Your task to perform on an android device: delete browsing data in the chrome app Image 0: 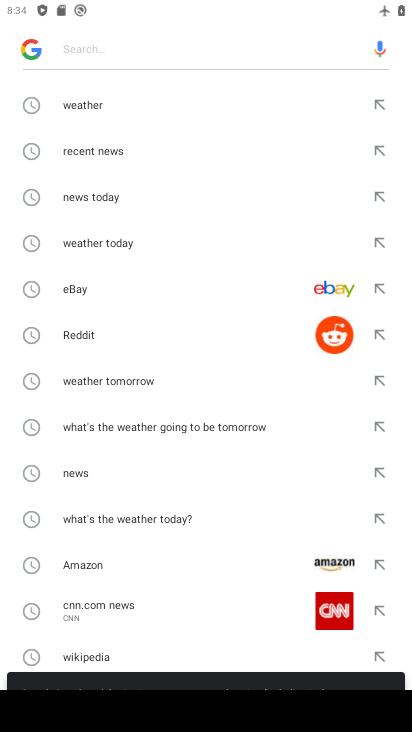
Step 0: press home button
Your task to perform on an android device: delete browsing data in the chrome app Image 1: 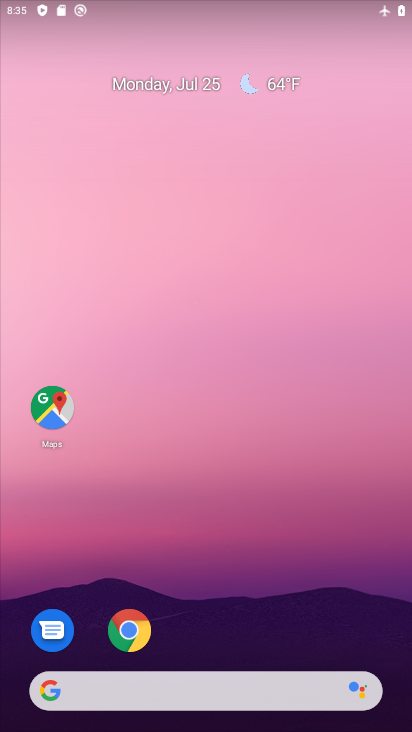
Step 1: click (130, 632)
Your task to perform on an android device: delete browsing data in the chrome app Image 2: 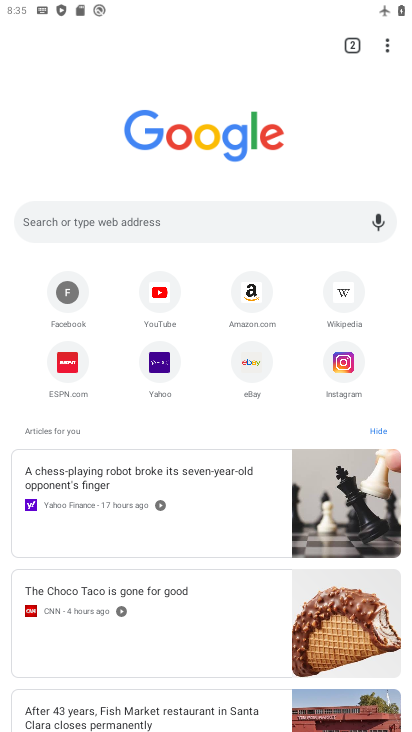
Step 2: click (385, 49)
Your task to perform on an android device: delete browsing data in the chrome app Image 3: 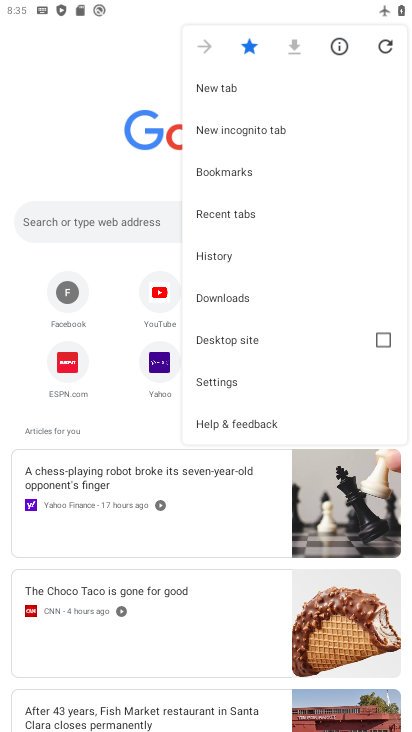
Step 3: click (225, 256)
Your task to perform on an android device: delete browsing data in the chrome app Image 4: 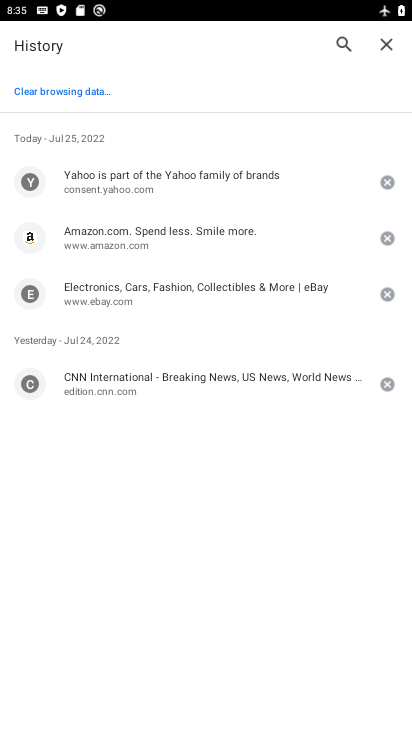
Step 4: click (51, 84)
Your task to perform on an android device: delete browsing data in the chrome app Image 5: 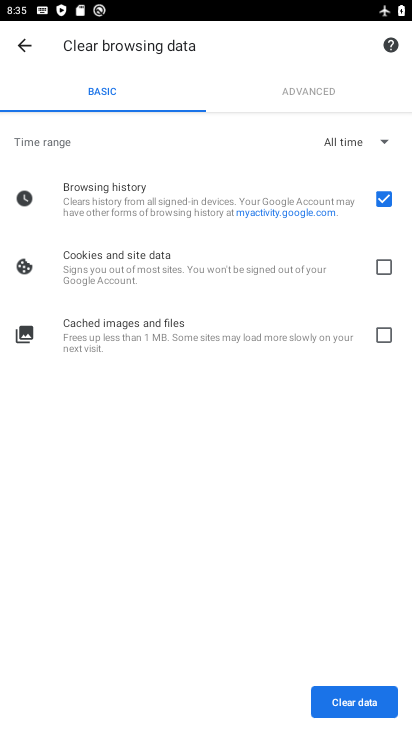
Step 5: click (359, 703)
Your task to perform on an android device: delete browsing data in the chrome app Image 6: 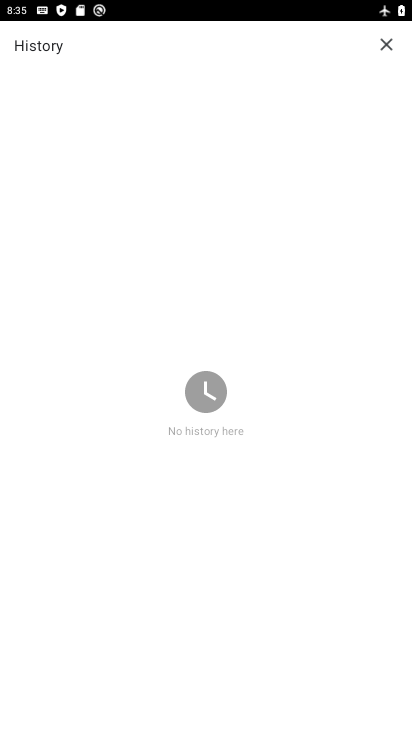
Step 6: task complete